Your task to perform on an android device: Go to wifi settings Image 0: 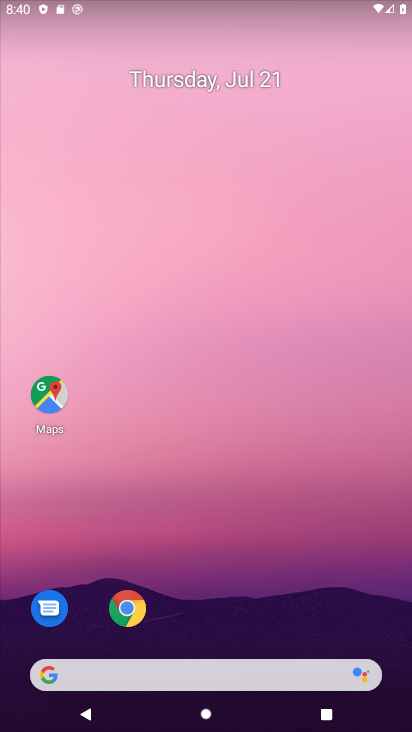
Step 0: drag from (263, 623) to (205, 205)
Your task to perform on an android device: Go to wifi settings Image 1: 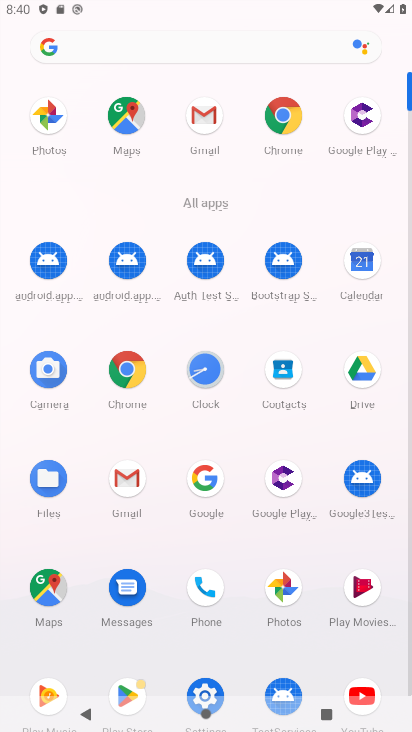
Step 1: click (202, 688)
Your task to perform on an android device: Go to wifi settings Image 2: 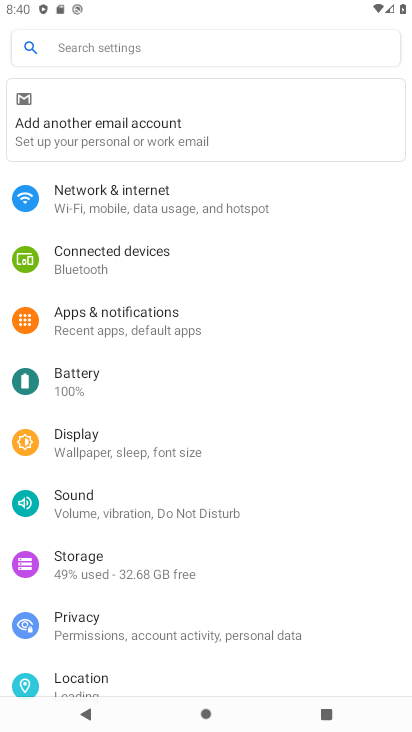
Step 2: drag from (183, 137) to (184, 0)
Your task to perform on an android device: Go to wifi settings Image 3: 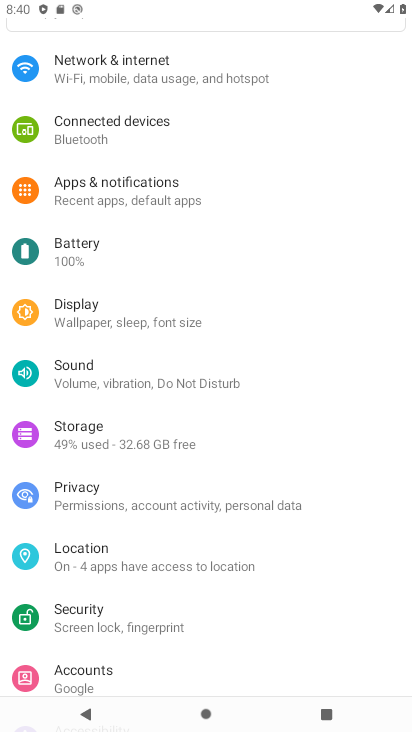
Step 3: click (189, 58)
Your task to perform on an android device: Go to wifi settings Image 4: 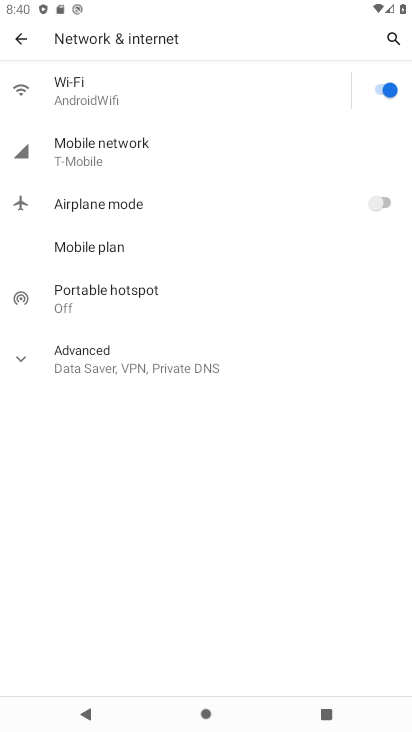
Step 4: click (211, 72)
Your task to perform on an android device: Go to wifi settings Image 5: 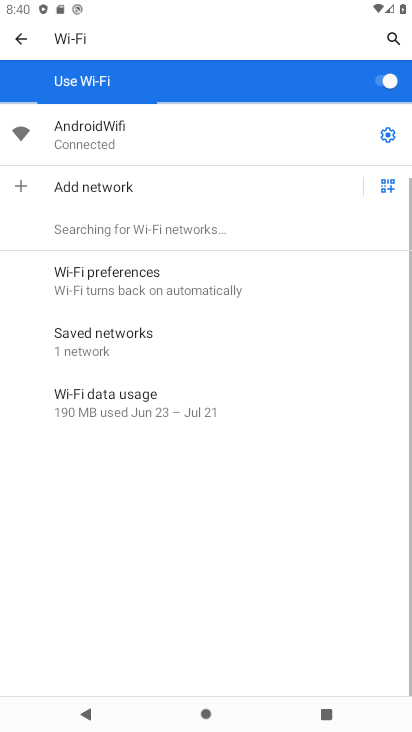
Step 5: task complete